Your task to perform on an android device: open app "McDonald's" (install if not already installed) and enter user name: "copes@yahoo.com" and password: "Rhenish" Image 0: 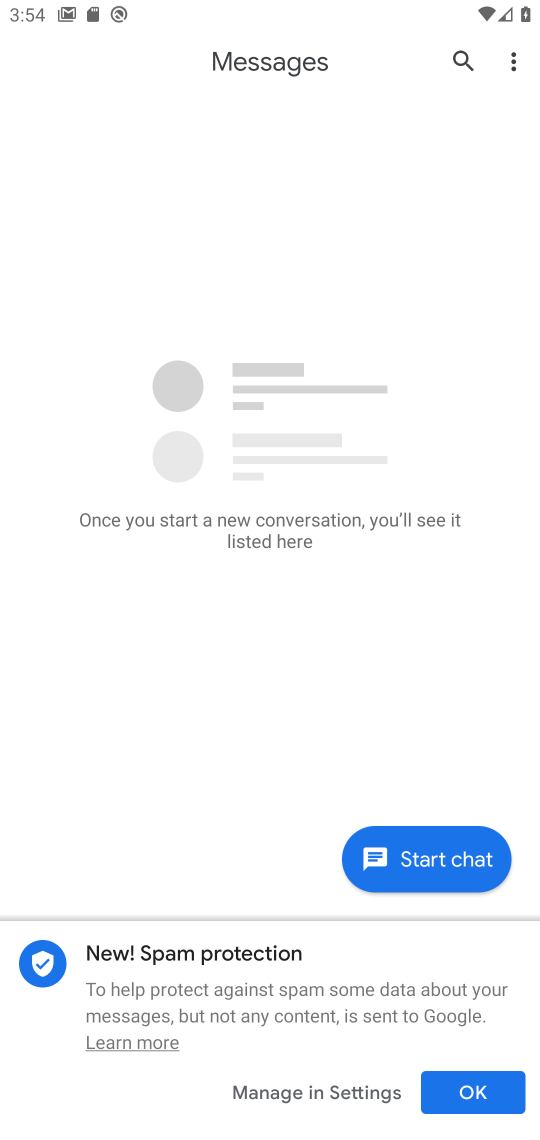
Step 0: press home button
Your task to perform on an android device: open app "McDonald's" (install if not already installed) and enter user name: "copes@yahoo.com" and password: "Rhenish" Image 1: 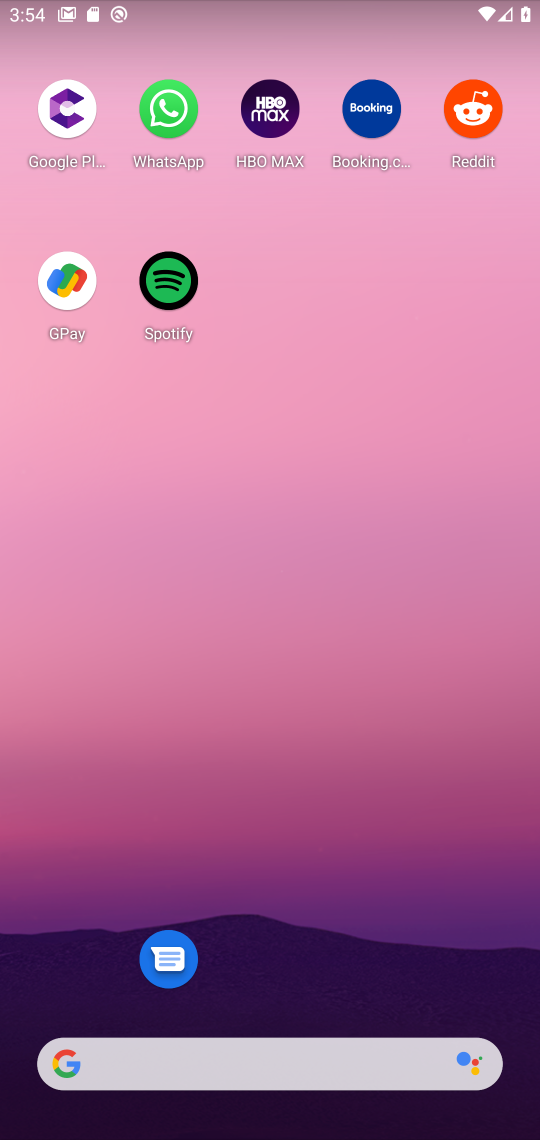
Step 1: drag from (372, 974) to (499, 211)
Your task to perform on an android device: open app "McDonald's" (install if not already installed) and enter user name: "copes@yahoo.com" and password: "Rhenish" Image 2: 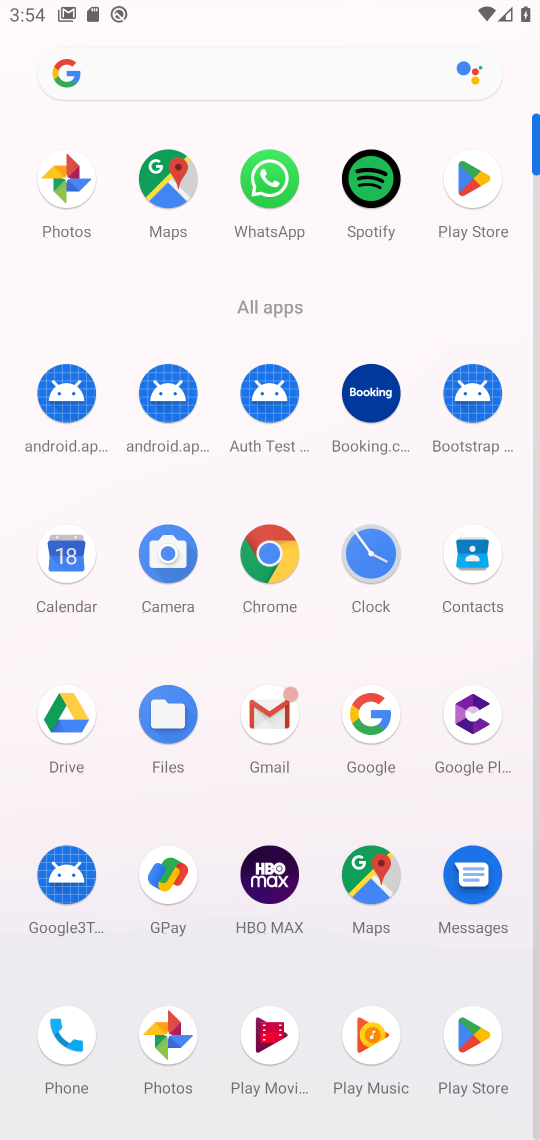
Step 2: click (485, 220)
Your task to perform on an android device: open app "McDonald's" (install if not already installed) and enter user name: "copes@yahoo.com" and password: "Rhenish" Image 3: 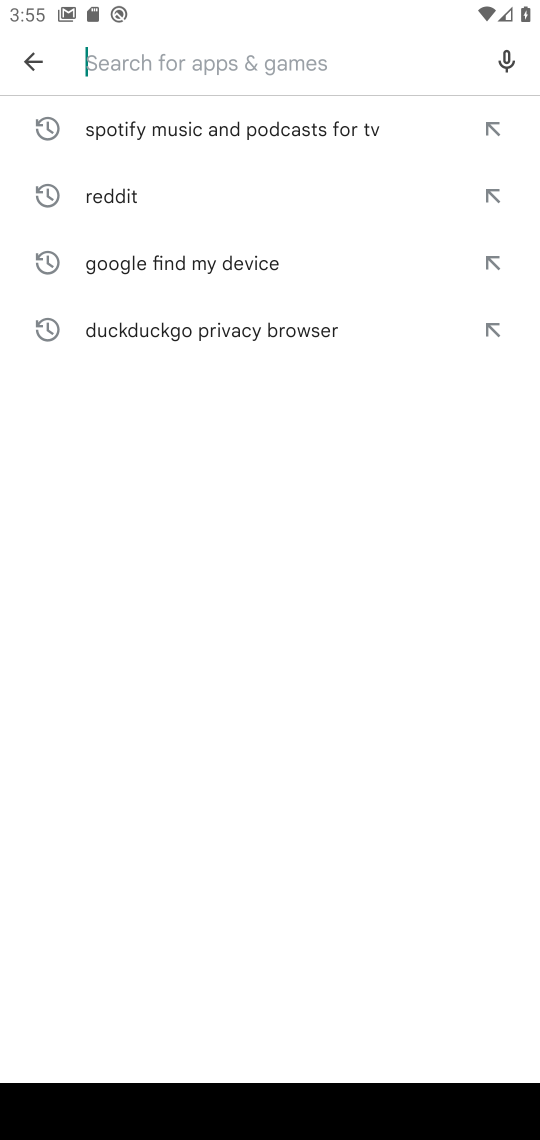
Step 3: type "McDonald's"
Your task to perform on an android device: open app "McDonald's" (install if not already installed) and enter user name: "copes@yahoo.com" and password: "Rhenish" Image 4: 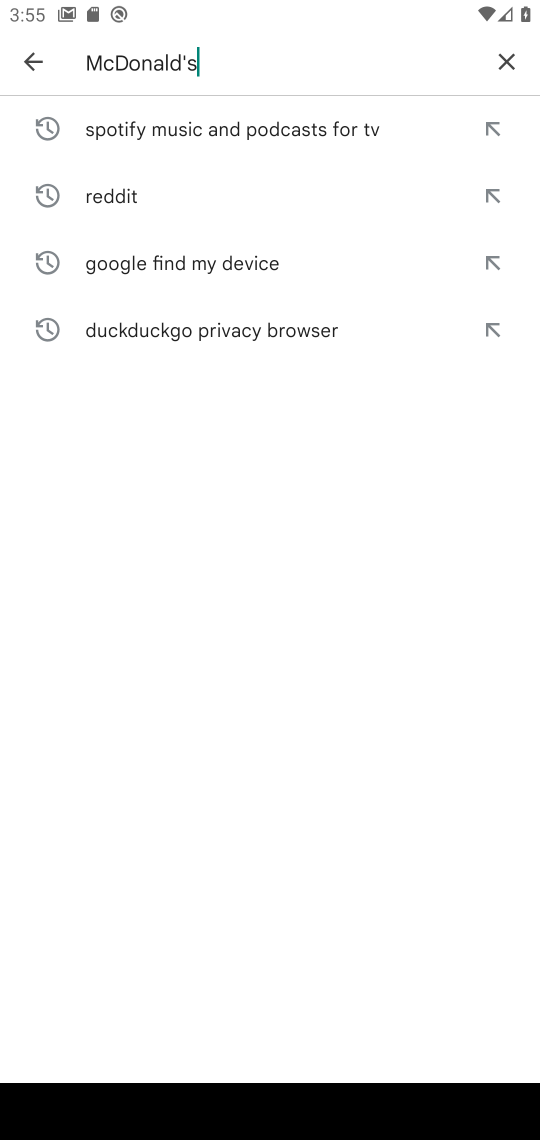
Step 4: type ""
Your task to perform on an android device: open app "McDonald's" (install if not already installed) and enter user name: "copes@yahoo.com" and password: "Rhenish" Image 5: 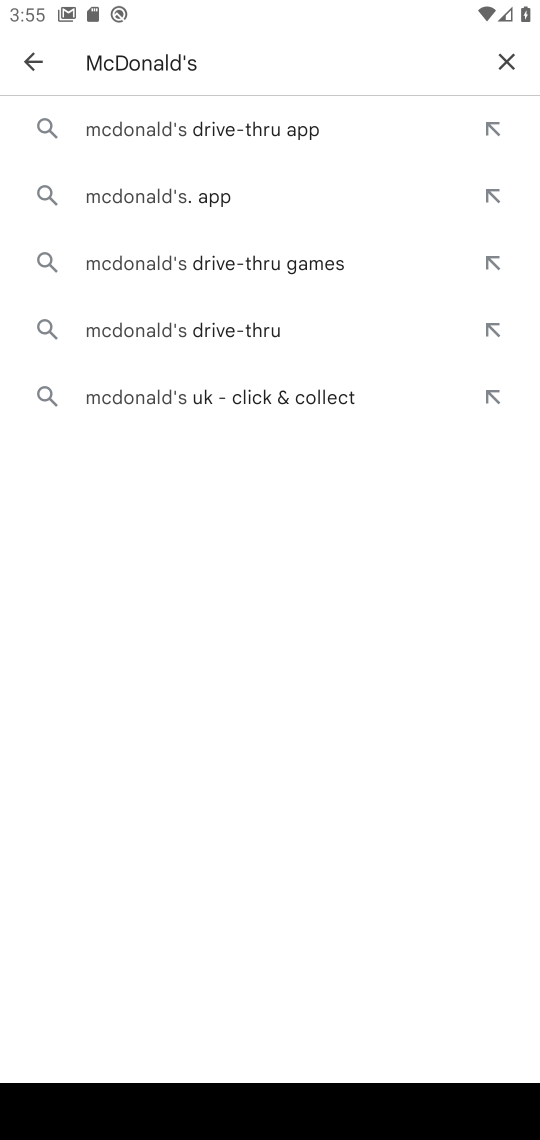
Step 5: click (271, 209)
Your task to perform on an android device: open app "McDonald's" (install if not already installed) and enter user name: "copes@yahoo.com" and password: "Rhenish" Image 6: 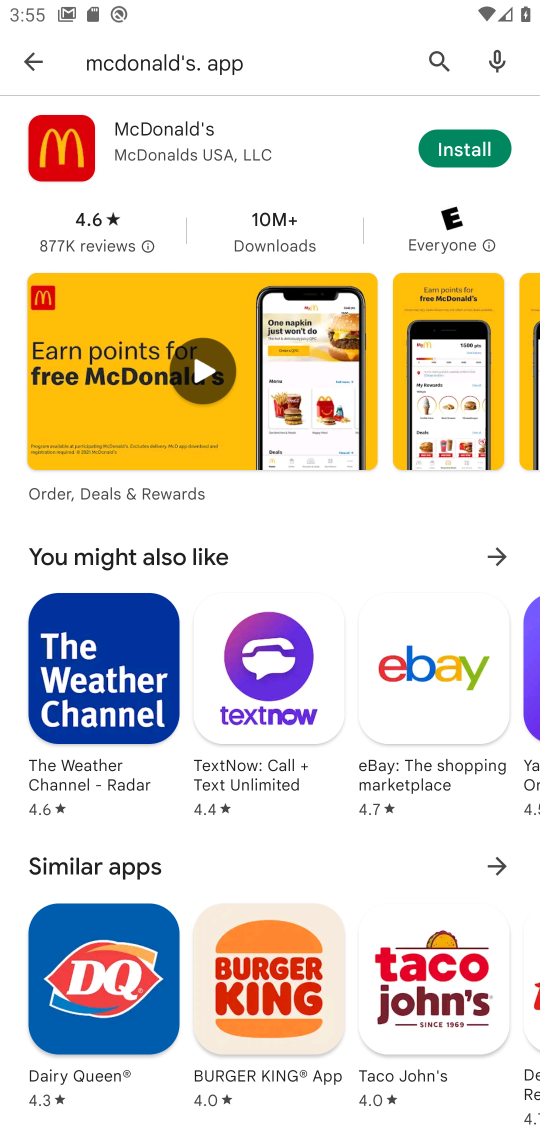
Step 6: click (483, 158)
Your task to perform on an android device: open app "McDonald's" (install if not already installed) and enter user name: "copes@yahoo.com" and password: "Rhenish" Image 7: 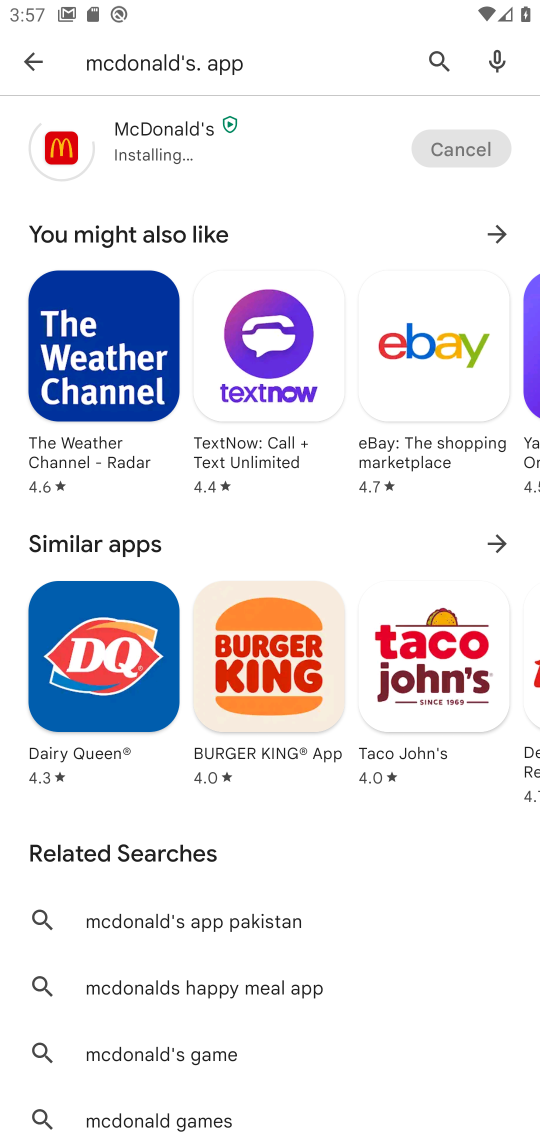
Step 7: task complete